Your task to perform on an android device: Search for the best rated running shoes on Nike.com Image 0: 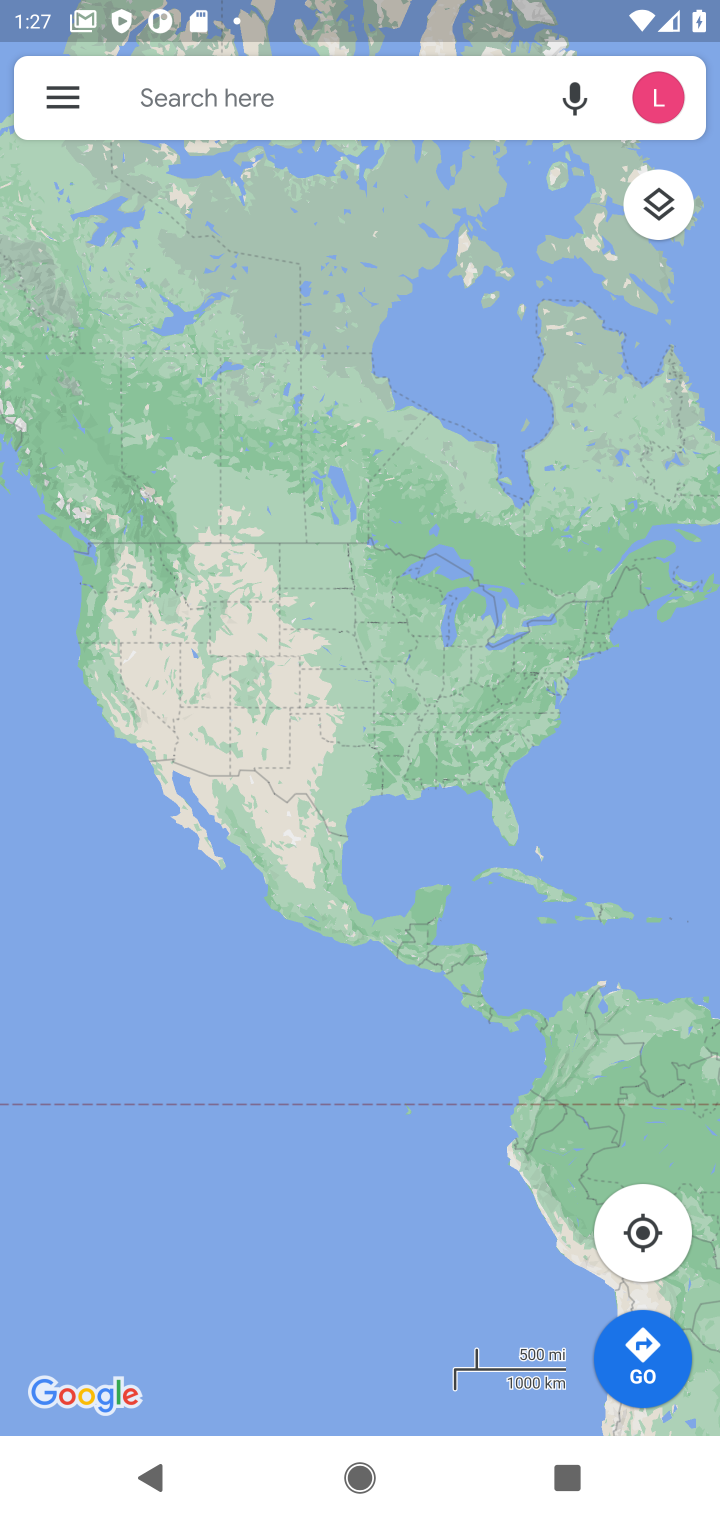
Step 0: press home button
Your task to perform on an android device: Search for the best rated running shoes on Nike.com Image 1: 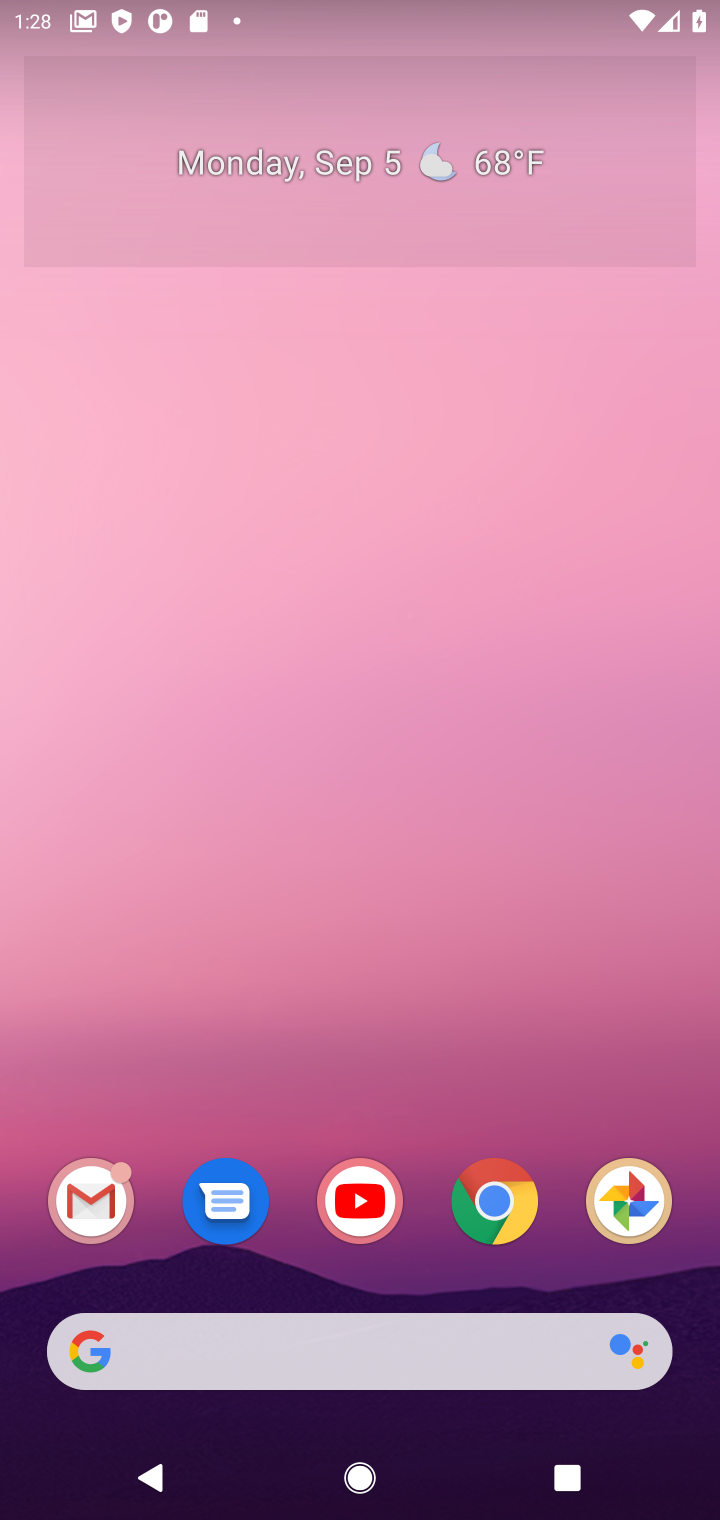
Step 1: click (485, 1204)
Your task to perform on an android device: Search for the best rated running shoes on Nike.com Image 2: 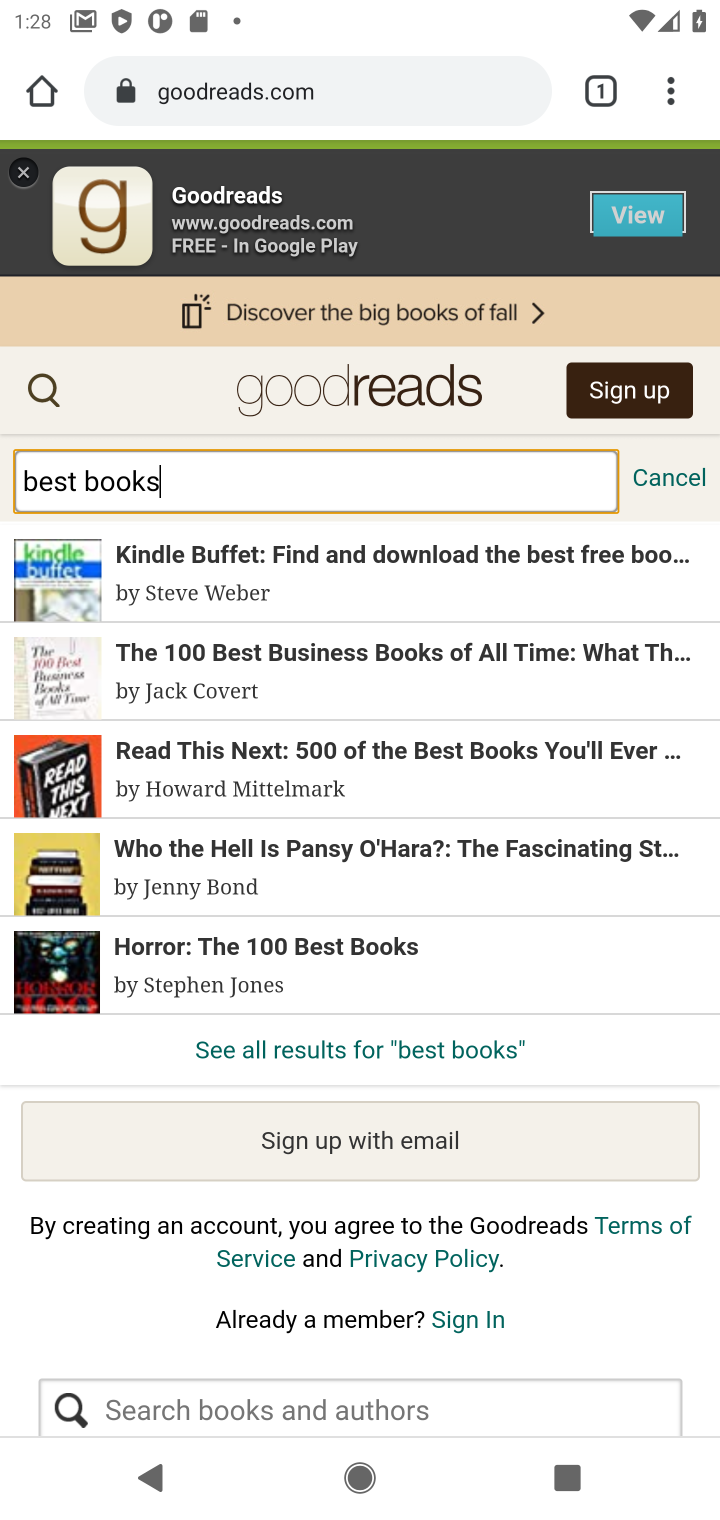
Step 2: click (362, 95)
Your task to perform on an android device: Search for the best rated running shoes on Nike.com Image 3: 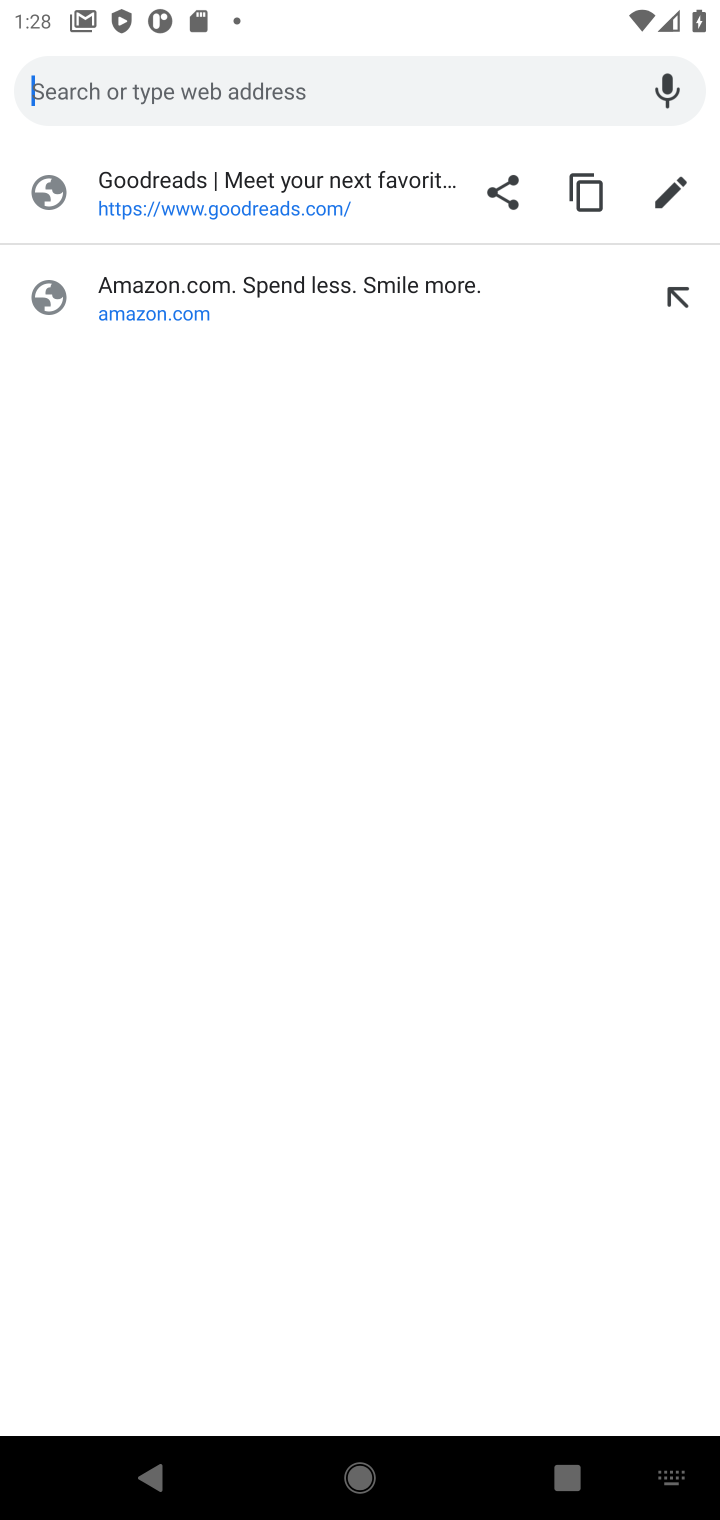
Step 3: type "Nike.com"
Your task to perform on an android device: Search for the best rated running shoes on Nike.com Image 4: 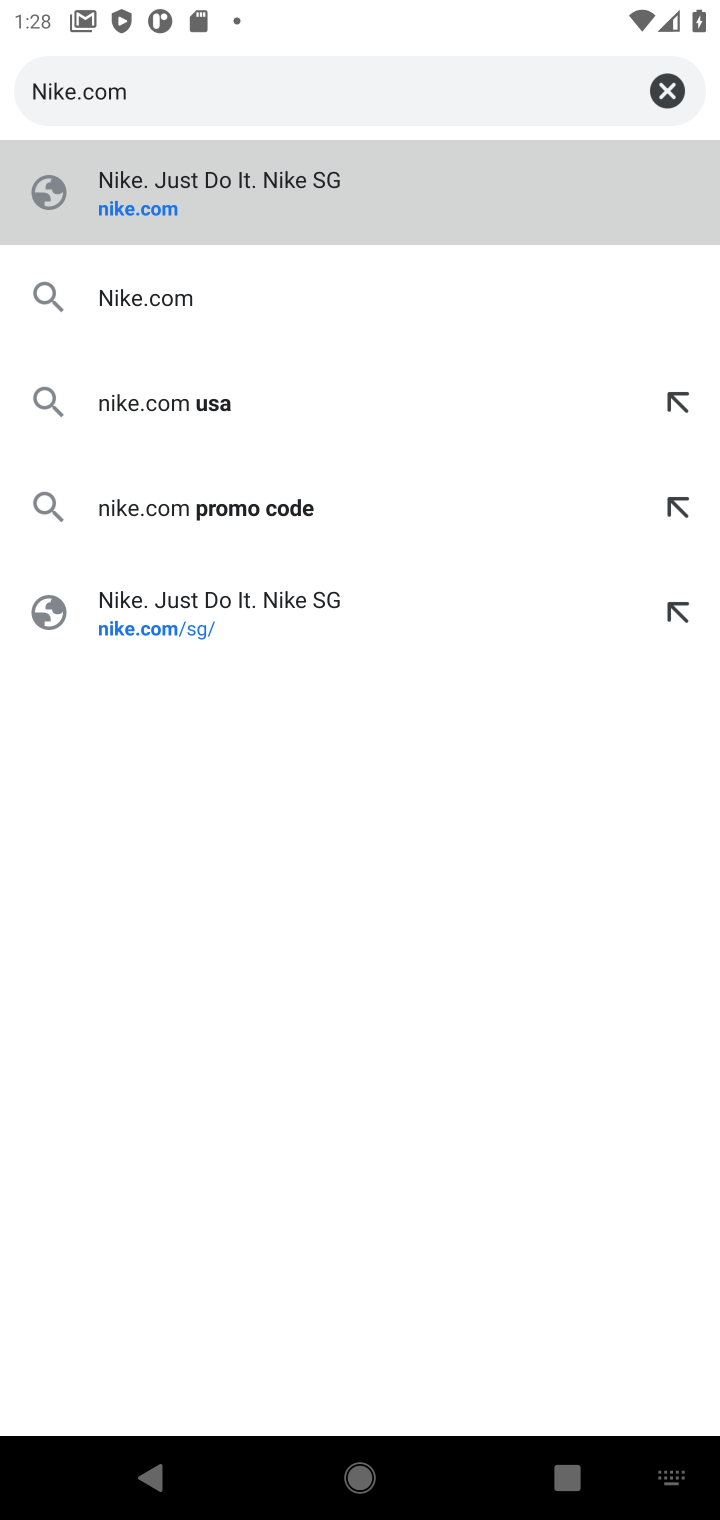
Step 4: press enter
Your task to perform on an android device: Search for the best rated running shoes on Nike.com Image 5: 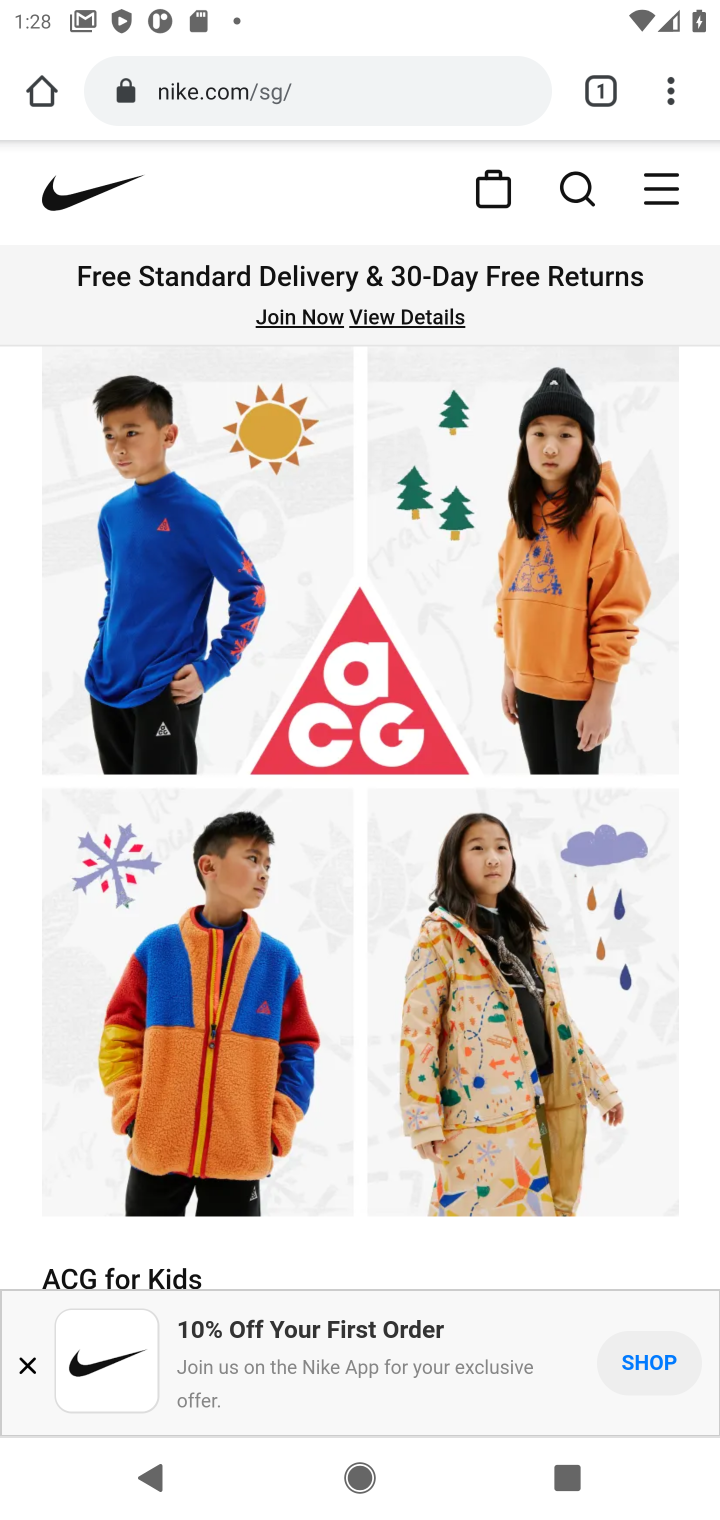
Step 5: click (550, 207)
Your task to perform on an android device: Search for the best rated running shoes on Nike.com Image 6: 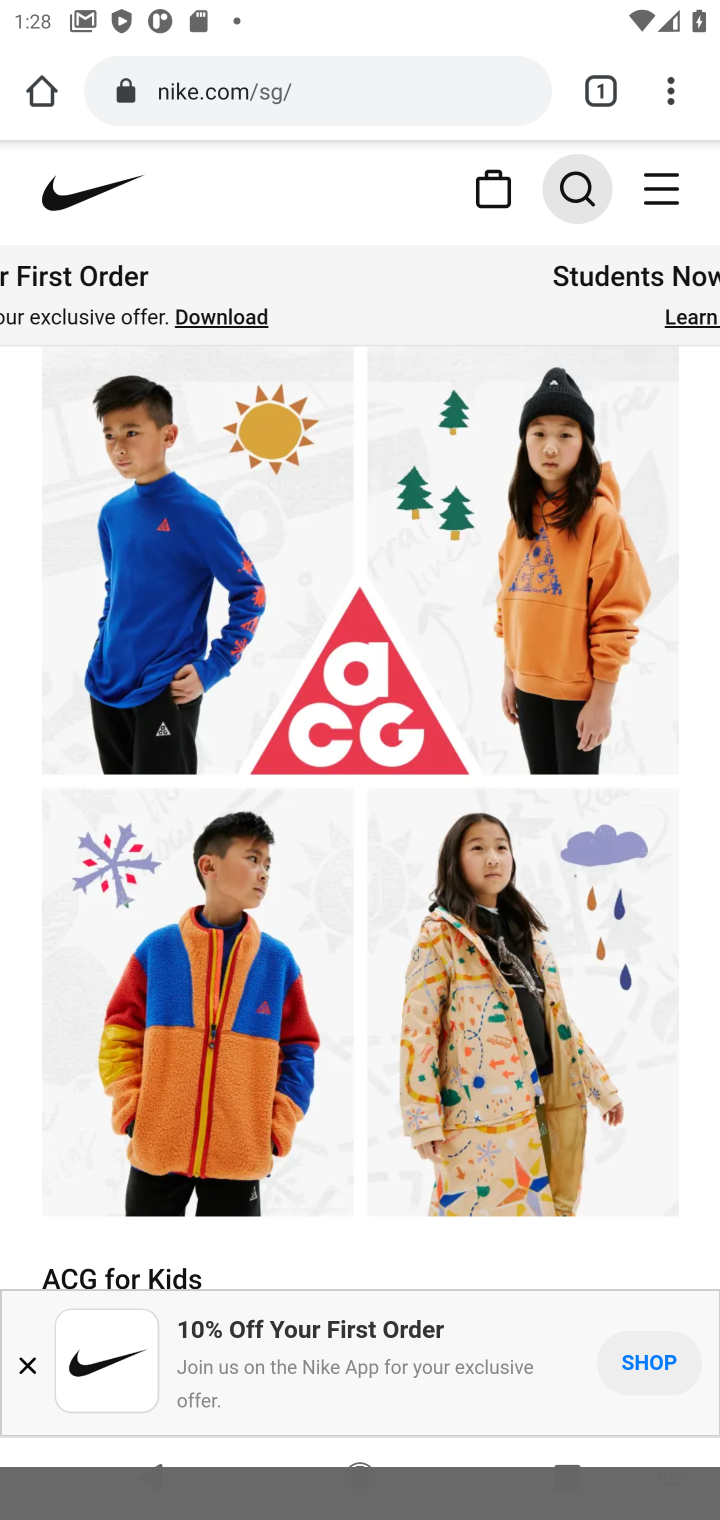
Step 6: click (558, 166)
Your task to perform on an android device: Search for the best rated running shoes on Nike.com Image 7: 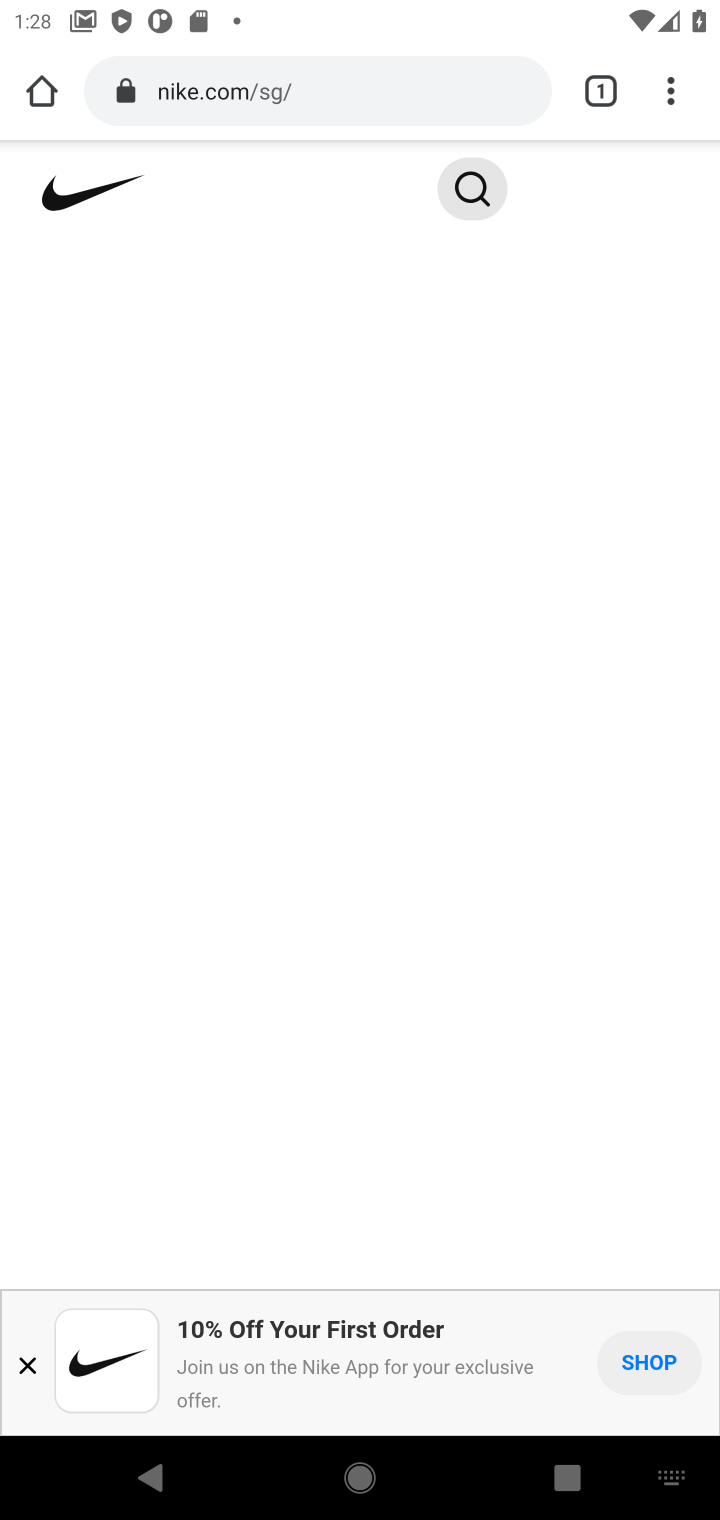
Step 7: click (244, 196)
Your task to perform on an android device: Search for the best rated running shoes on Nike.com Image 8: 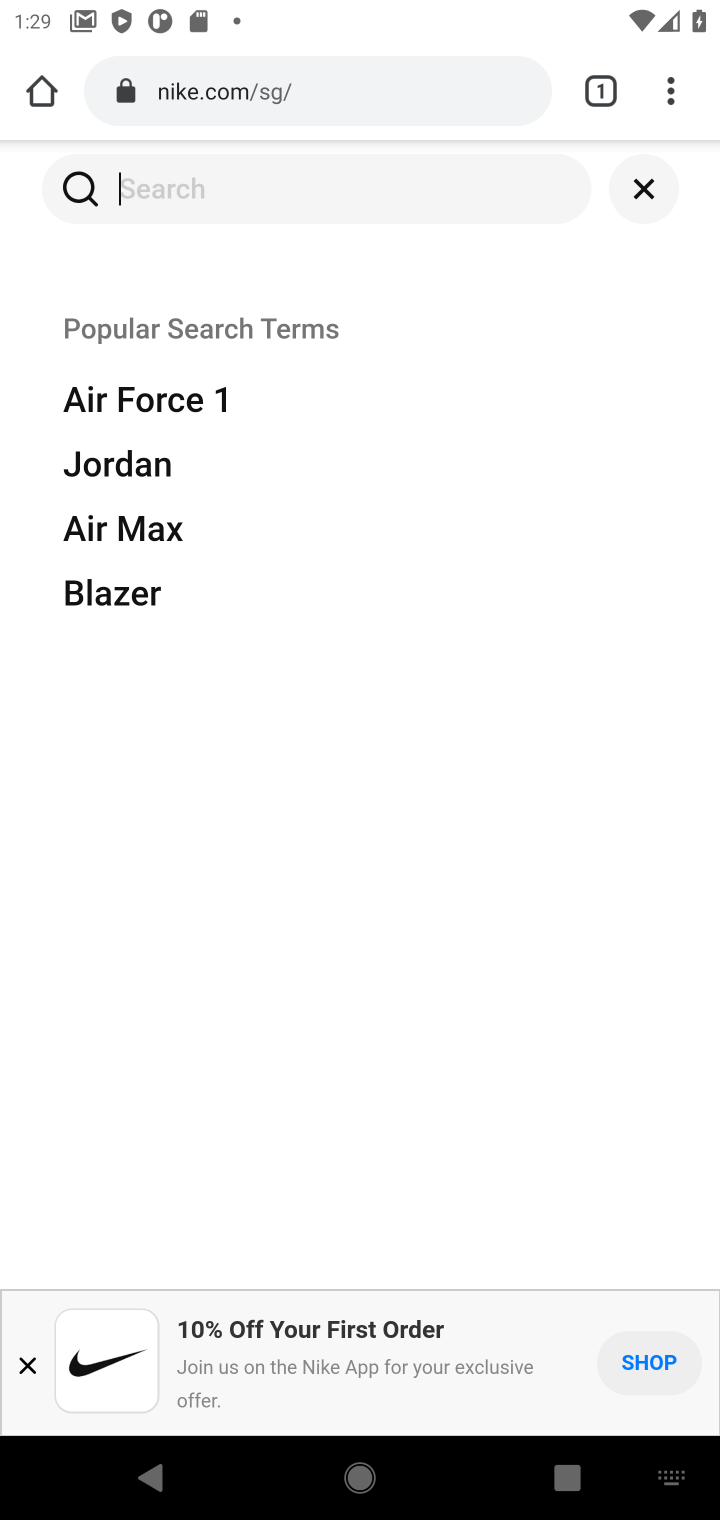
Step 8: type " running shoes"
Your task to perform on an android device: Search for the best rated running shoes on Nike.com Image 9: 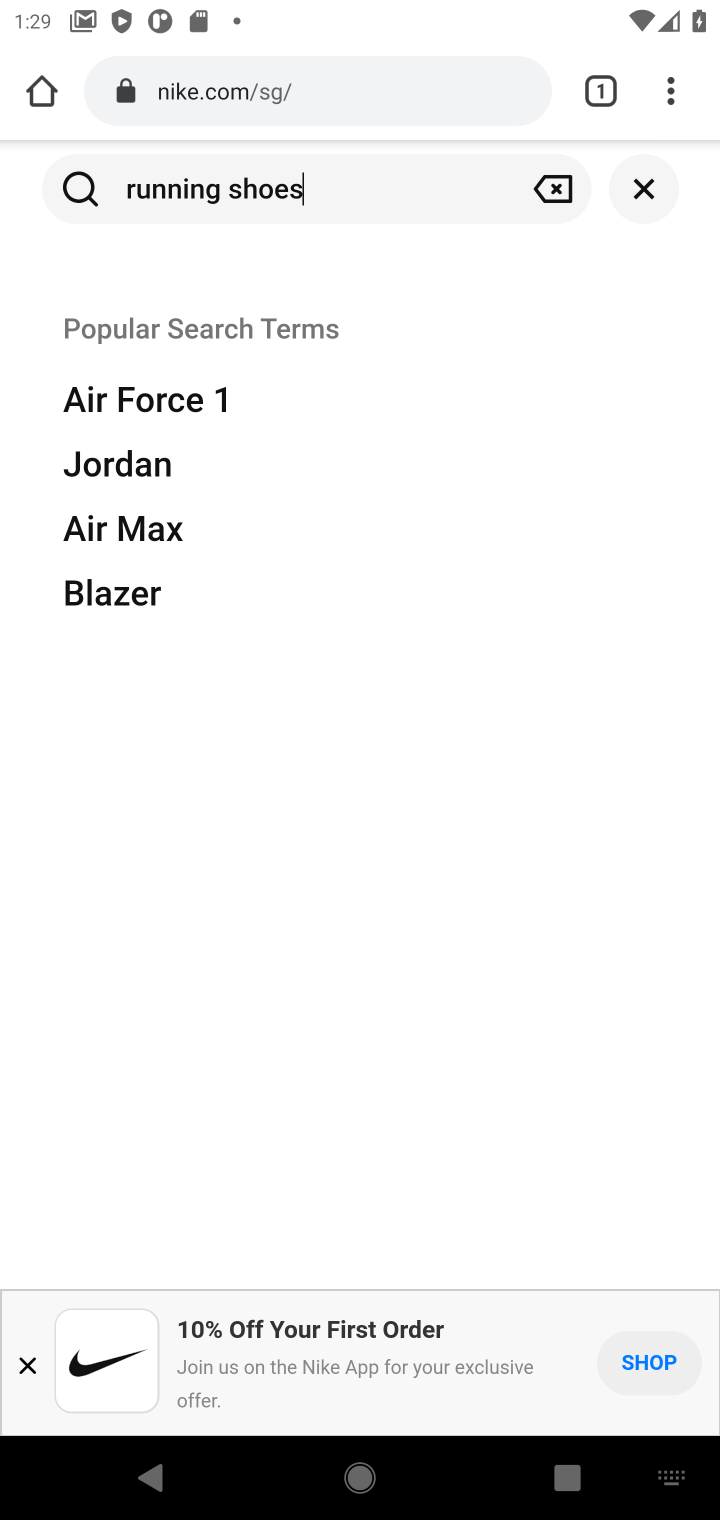
Step 9: press enter
Your task to perform on an android device: Search for the best rated running shoes on Nike.com Image 10: 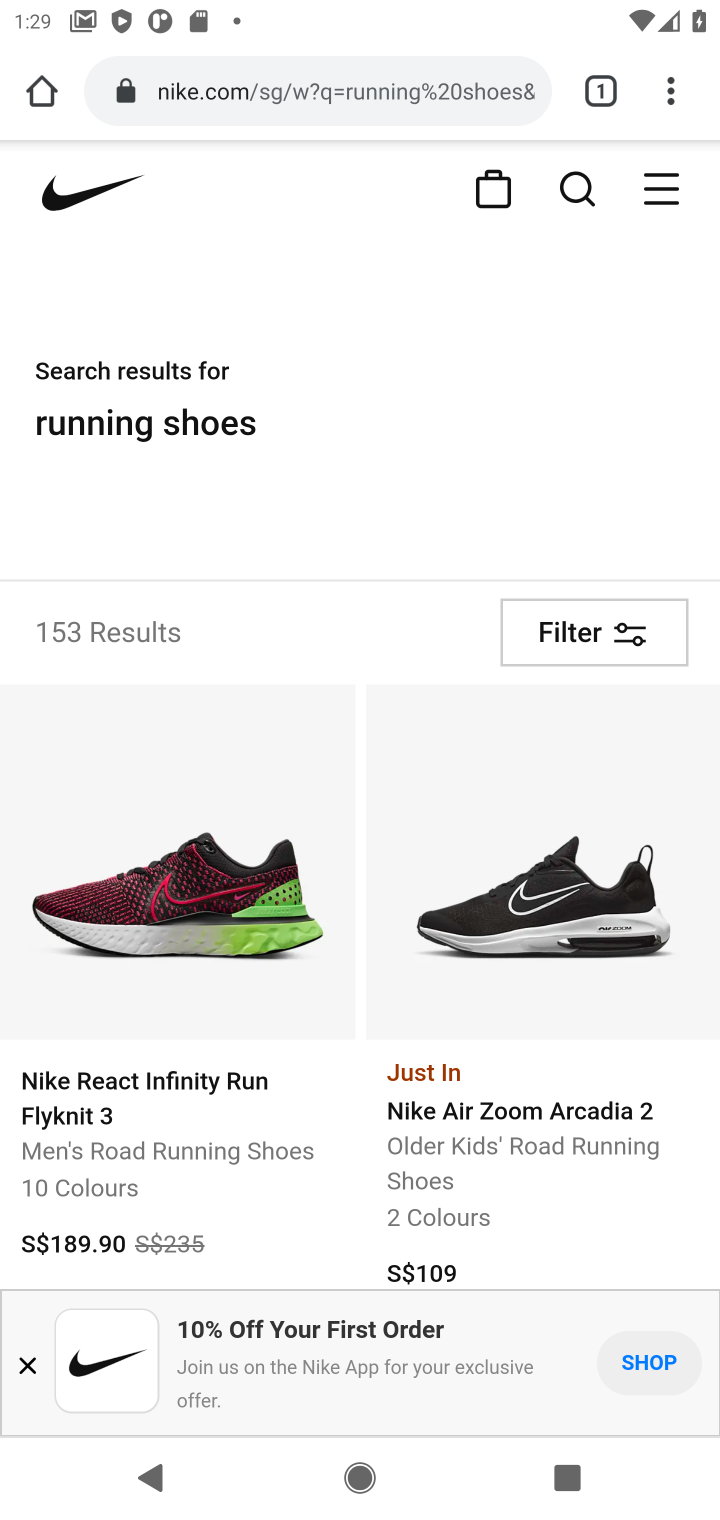
Step 10: task complete